Your task to perform on an android device: turn on the 12-hour format for clock Image 0: 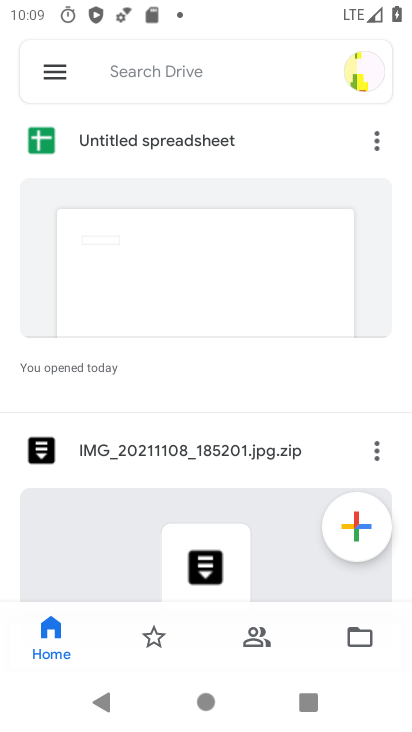
Step 0: press home button
Your task to perform on an android device: turn on the 12-hour format for clock Image 1: 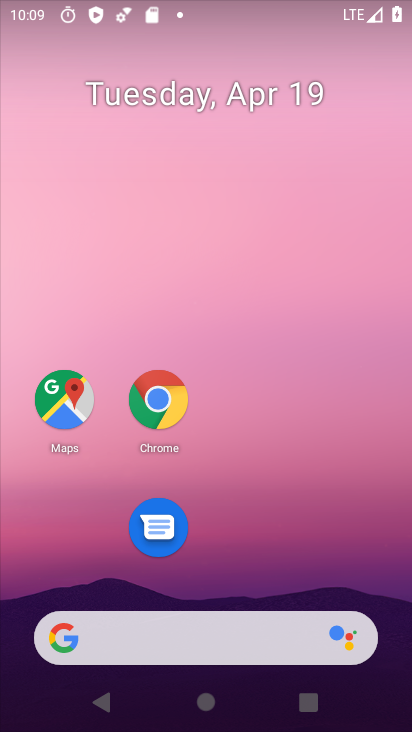
Step 1: drag from (277, 625) to (333, 204)
Your task to perform on an android device: turn on the 12-hour format for clock Image 2: 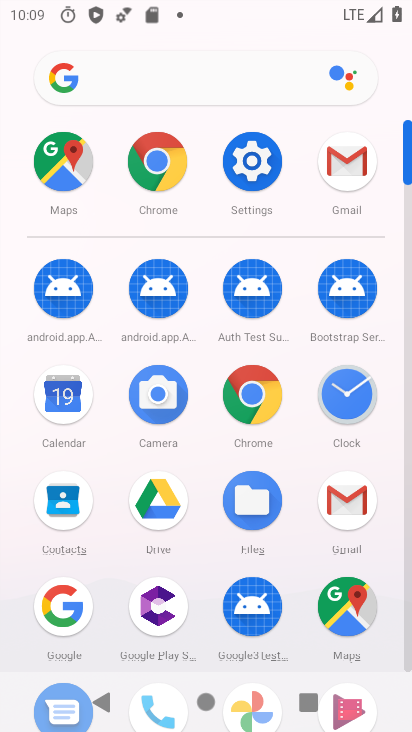
Step 2: click (328, 391)
Your task to perform on an android device: turn on the 12-hour format for clock Image 3: 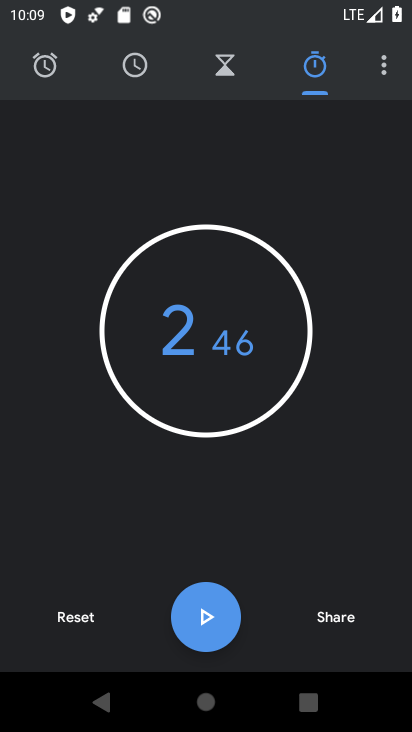
Step 3: click (390, 82)
Your task to perform on an android device: turn on the 12-hour format for clock Image 4: 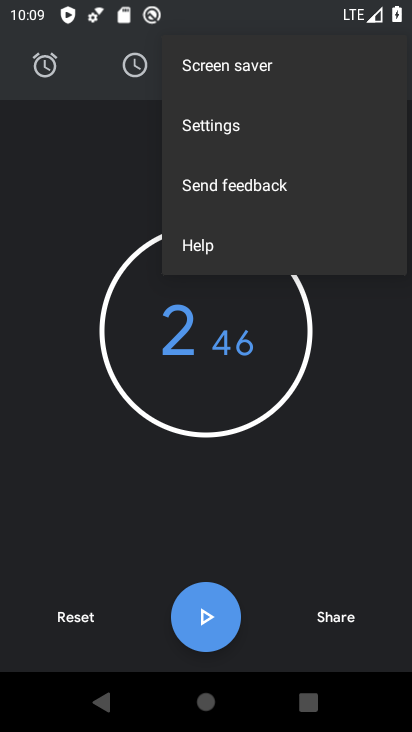
Step 4: click (239, 131)
Your task to perform on an android device: turn on the 12-hour format for clock Image 5: 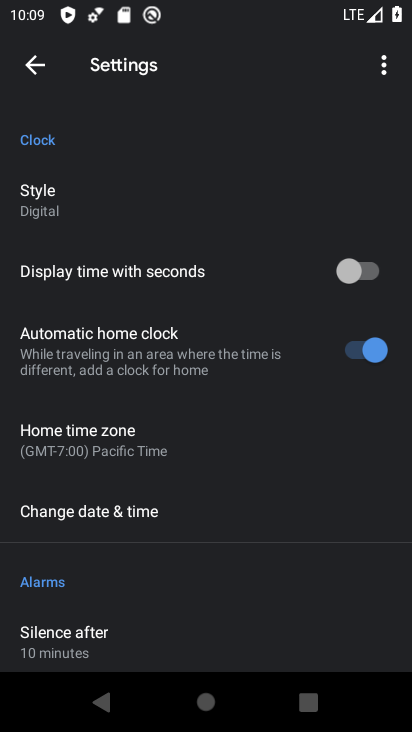
Step 5: click (117, 506)
Your task to perform on an android device: turn on the 12-hour format for clock Image 6: 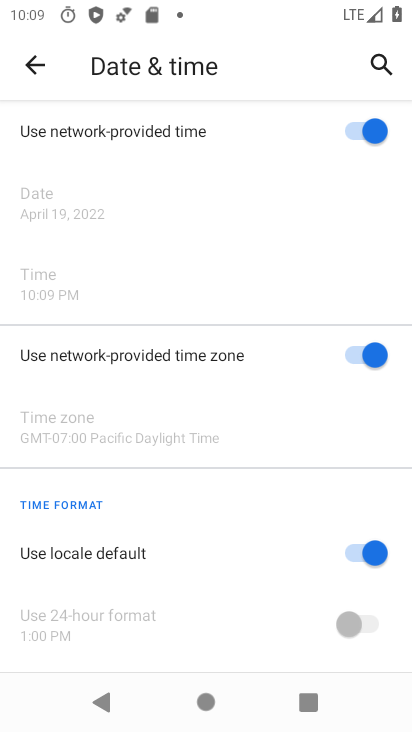
Step 6: click (345, 559)
Your task to perform on an android device: turn on the 12-hour format for clock Image 7: 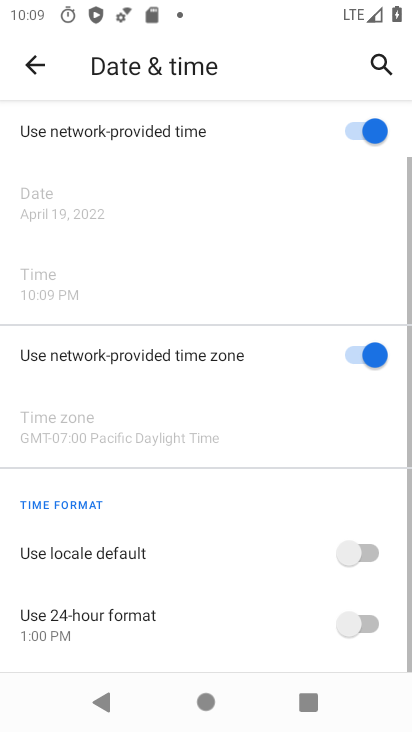
Step 7: click (361, 618)
Your task to perform on an android device: turn on the 12-hour format for clock Image 8: 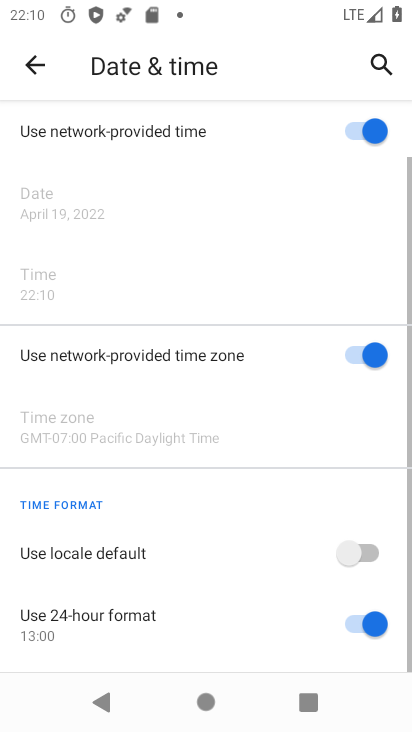
Step 8: click (335, 626)
Your task to perform on an android device: turn on the 12-hour format for clock Image 9: 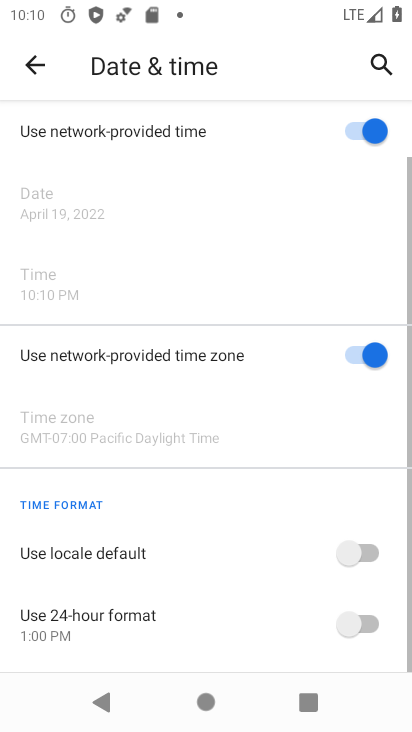
Step 9: task complete